Your task to perform on an android device: Search for Mexican restaurants on Maps Image 0: 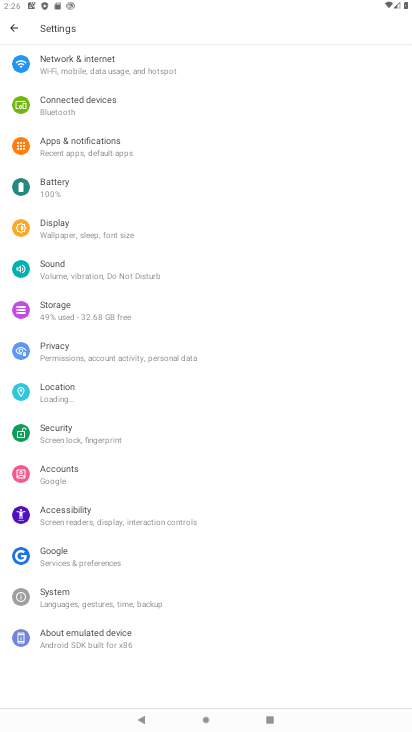
Step 0: press home button
Your task to perform on an android device: Search for Mexican restaurants on Maps Image 1: 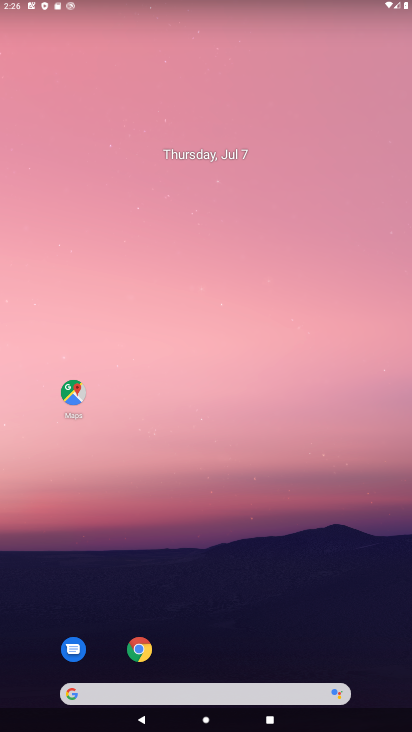
Step 1: drag from (243, 699) to (272, 98)
Your task to perform on an android device: Search for Mexican restaurants on Maps Image 2: 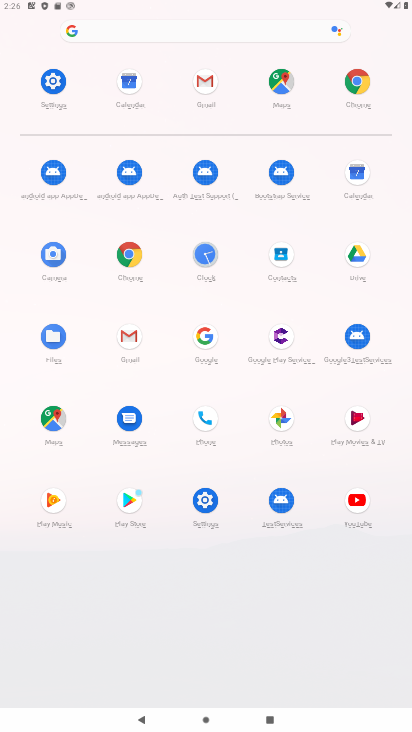
Step 2: click (53, 421)
Your task to perform on an android device: Search for Mexican restaurants on Maps Image 3: 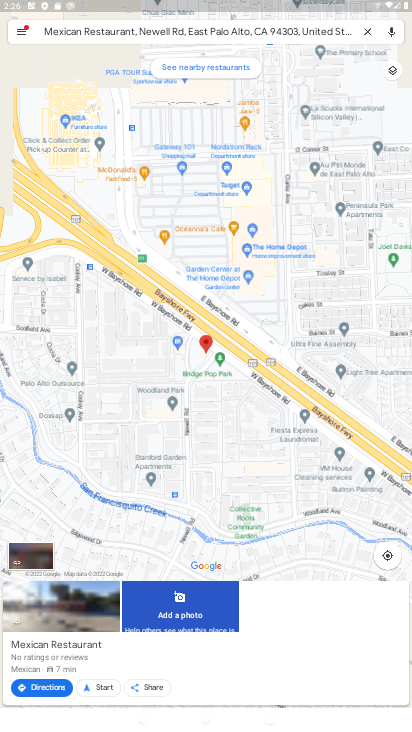
Step 3: click (166, 26)
Your task to perform on an android device: Search for Mexican restaurants on Maps Image 4: 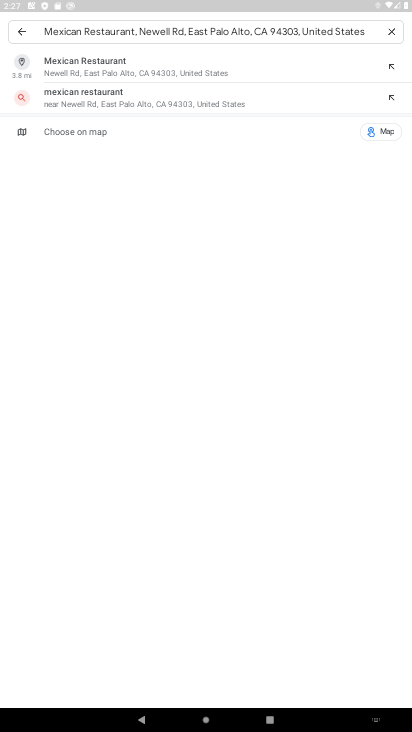
Step 4: click (392, 35)
Your task to perform on an android device: Search for Mexican restaurants on Maps Image 5: 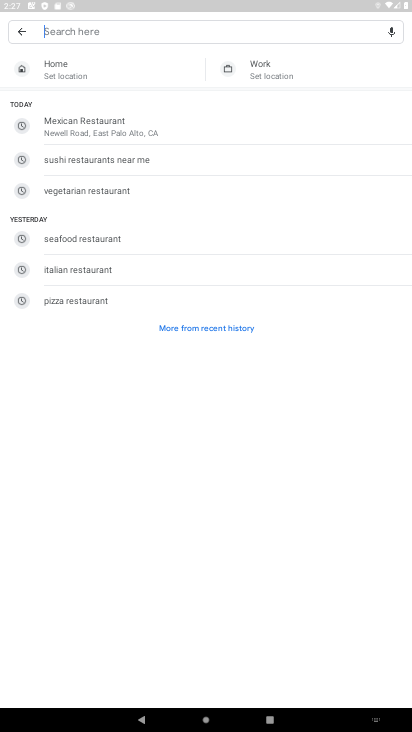
Step 5: type "mexican restaurant"
Your task to perform on an android device: Search for Mexican restaurants on Maps Image 6: 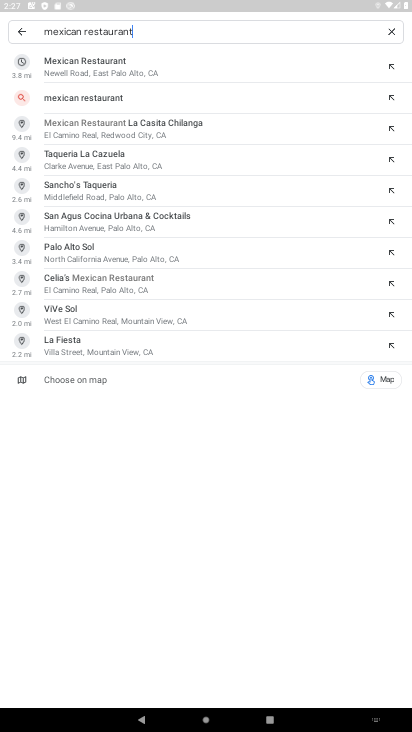
Step 6: click (118, 86)
Your task to perform on an android device: Search for Mexican restaurants on Maps Image 7: 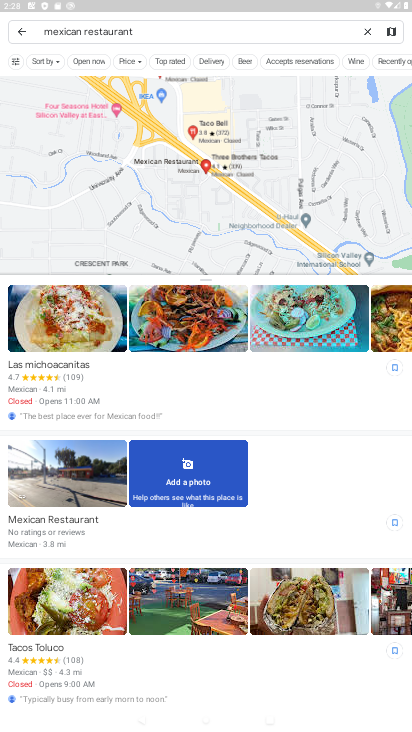
Step 7: task complete